Your task to perform on an android device: check out phone information Image 0: 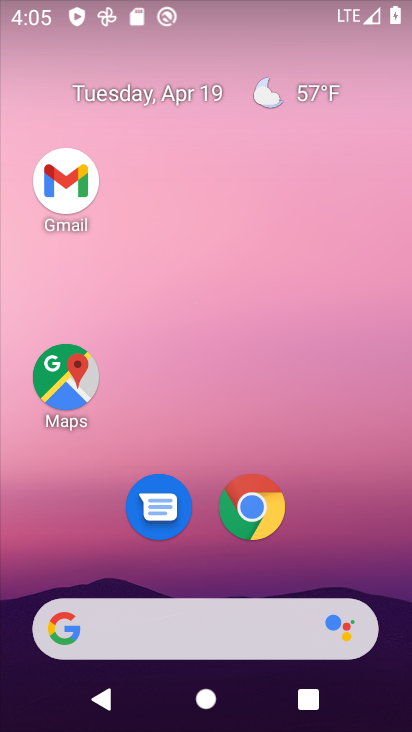
Step 0: click (43, 190)
Your task to perform on an android device: check out phone information Image 1: 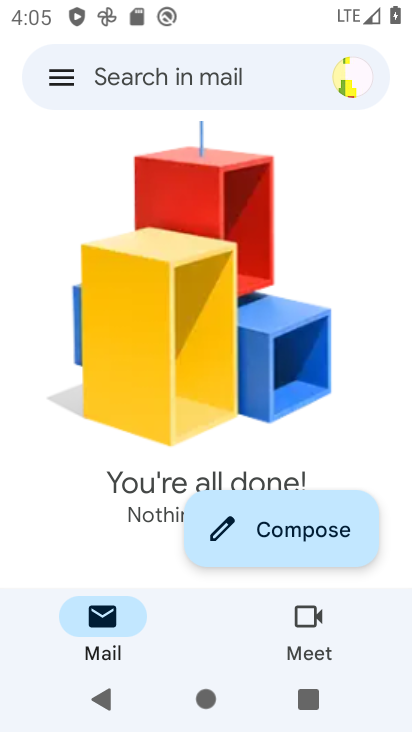
Step 1: press home button
Your task to perform on an android device: check out phone information Image 2: 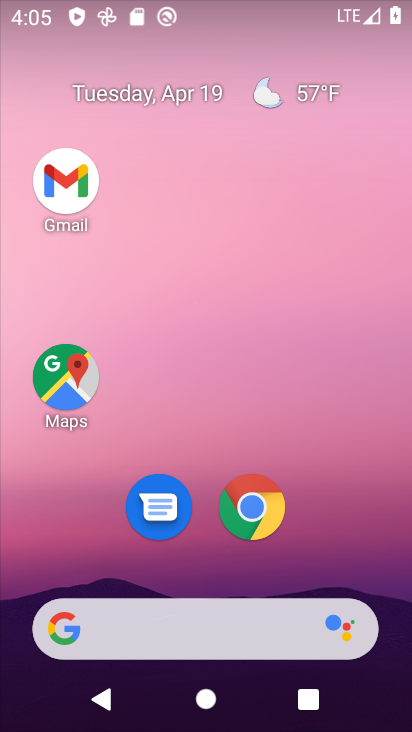
Step 2: click (78, 177)
Your task to perform on an android device: check out phone information Image 3: 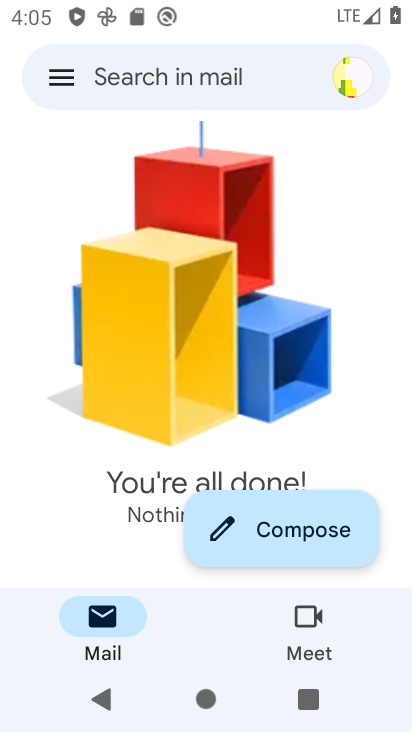
Step 3: press home button
Your task to perform on an android device: check out phone information Image 4: 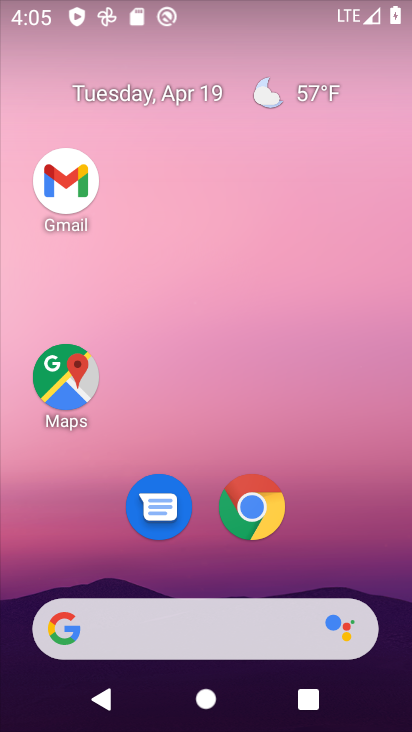
Step 4: click (48, 354)
Your task to perform on an android device: check out phone information Image 5: 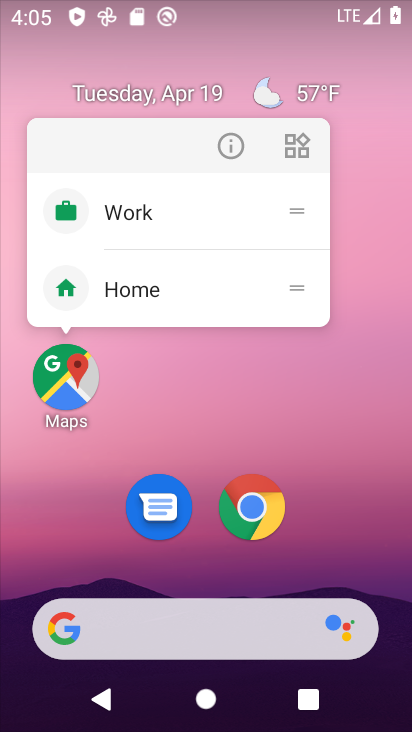
Step 5: click (60, 363)
Your task to perform on an android device: check out phone information Image 6: 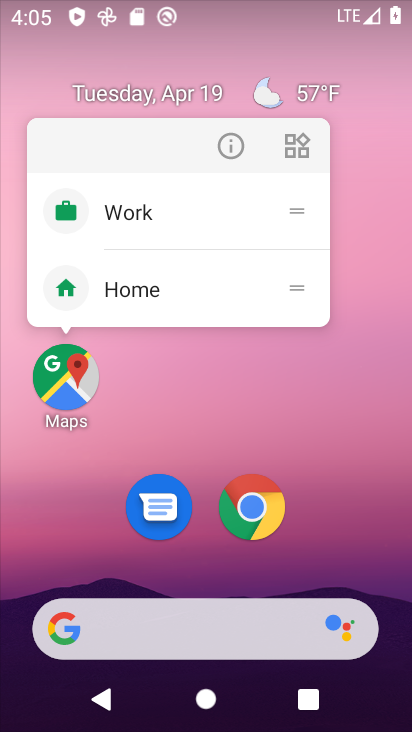
Step 6: click (60, 363)
Your task to perform on an android device: check out phone information Image 7: 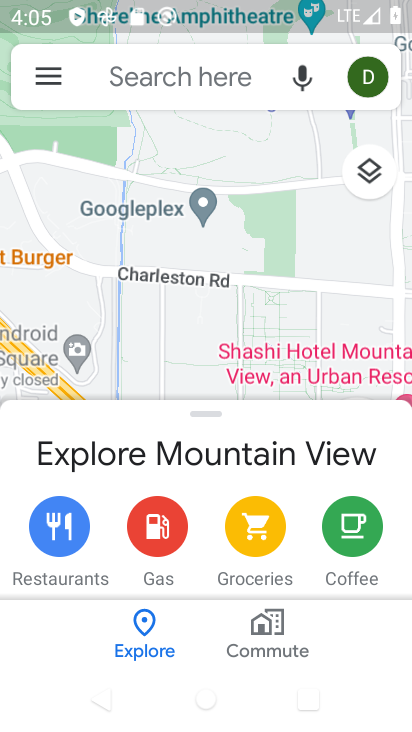
Step 7: click (204, 80)
Your task to perform on an android device: check out phone information Image 8: 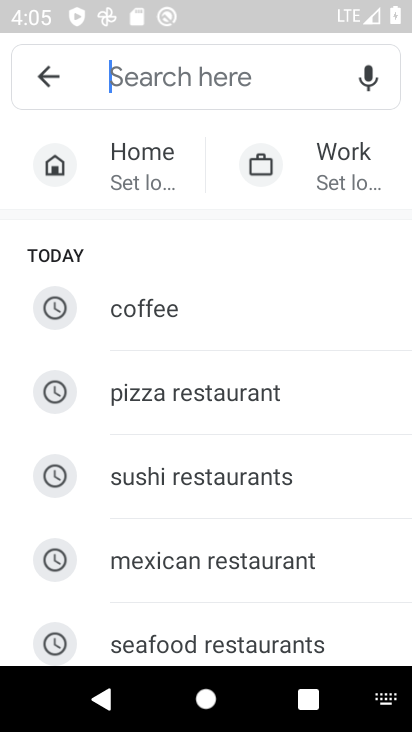
Step 8: type "sushi restaurants"
Your task to perform on an android device: check out phone information Image 9: 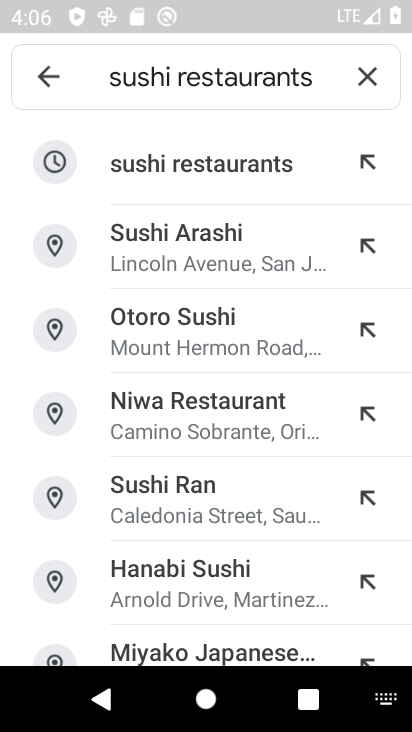
Step 9: task complete